Your task to perform on an android device: Search for "lg ultragear" on bestbuy, select the first entry, and add it to the cart. Image 0: 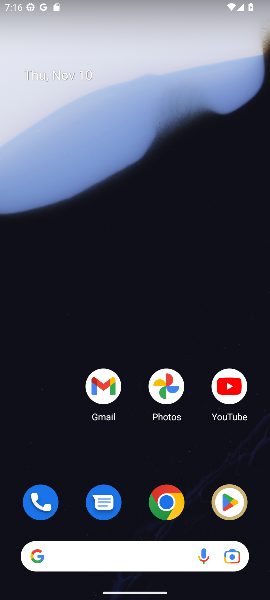
Step 0: drag from (124, 450) to (112, 98)
Your task to perform on an android device: Search for "lg ultragear" on bestbuy, select the first entry, and add it to the cart. Image 1: 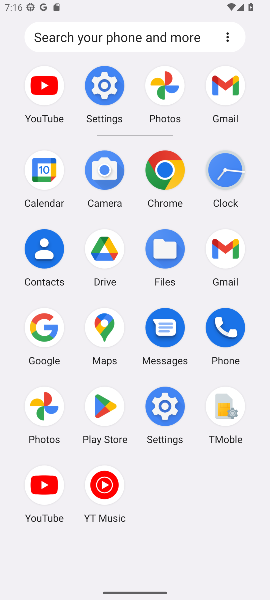
Step 1: click (52, 332)
Your task to perform on an android device: Search for "lg ultragear" on bestbuy, select the first entry, and add it to the cart. Image 2: 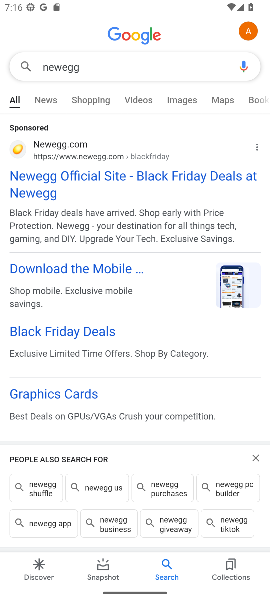
Step 2: click (132, 67)
Your task to perform on an android device: Search for "lg ultragear" on bestbuy, select the first entry, and add it to the cart. Image 3: 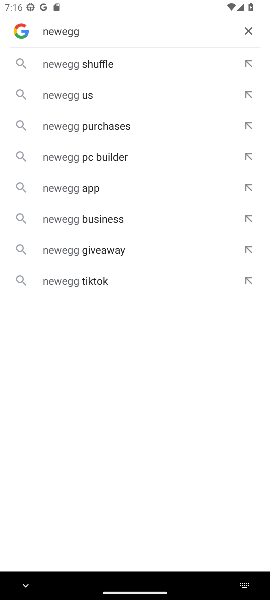
Step 3: click (246, 34)
Your task to perform on an android device: Search for "lg ultragear" on bestbuy, select the first entry, and add it to the cart. Image 4: 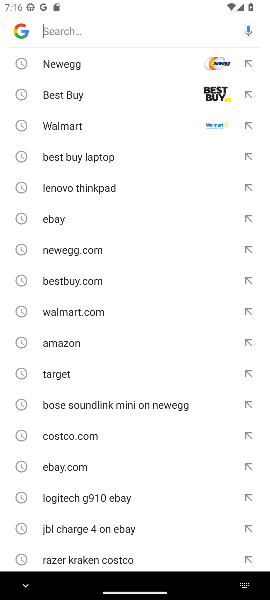
Step 4: type "bestbuy"
Your task to perform on an android device: Search for "lg ultragear" on bestbuy, select the first entry, and add it to the cart. Image 5: 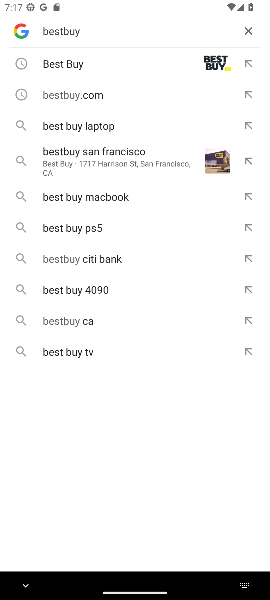
Step 5: click (135, 64)
Your task to perform on an android device: Search for "lg ultragear" on bestbuy, select the first entry, and add it to the cart. Image 6: 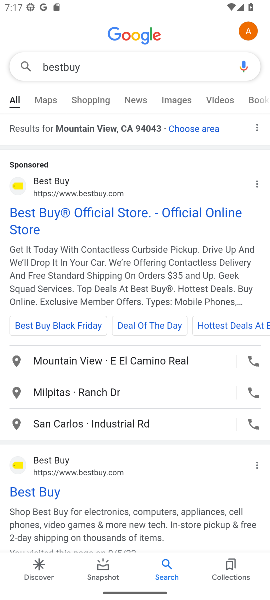
Step 6: click (44, 184)
Your task to perform on an android device: Search for "lg ultragear" on bestbuy, select the first entry, and add it to the cart. Image 7: 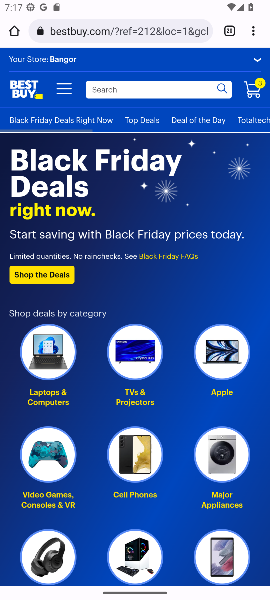
Step 7: click (142, 88)
Your task to perform on an android device: Search for "lg ultragear" on bestbuy, select the first entry, and add it to the cart. Image 8: 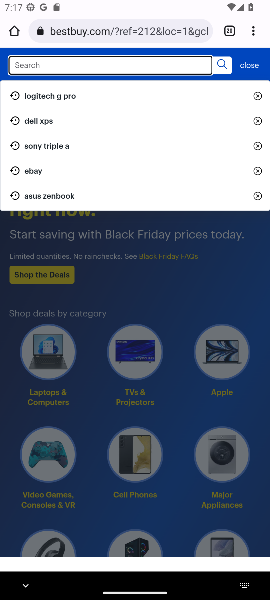
Step 8: type "lg ultragear"
Your task to perform on an android device: Search for "lg ultragear" on bestbuy, select the first entry, and add it to the cart. Image 9: 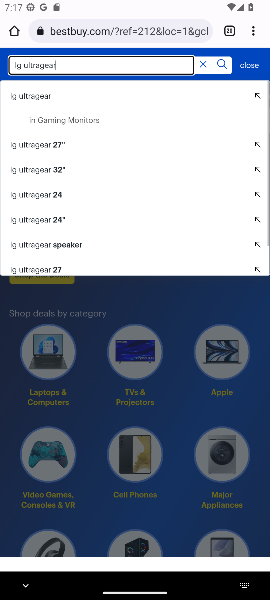
Step 9: click (38, 98)
Your task to perform on an android device: Search for "lg ultragear" on bestbuy, select the first entry, and add it to the cart. Image 10: 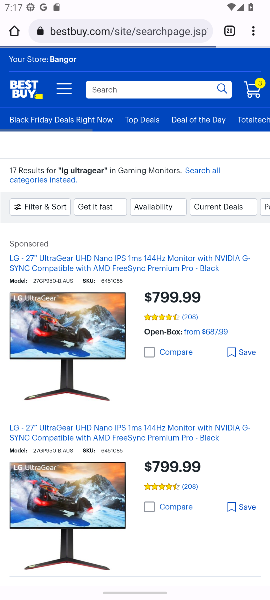
Step 10: click (224, 71)
Your task to perform on an android device: Search for "lg ultragear" on bestbuy, select the first entry, and add it to the cart. Image 11: 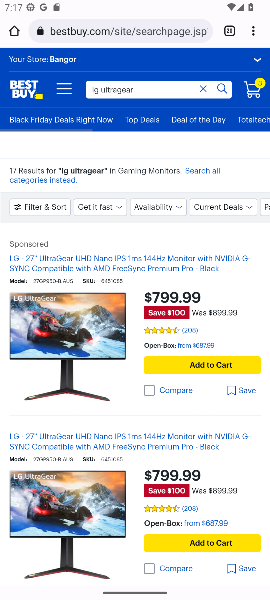
Step 11: click (97, 347)
Your task to perform on an android device: Search for "lg ultragear" on bestbuy, select the first entry, and add it to the cart. Image 12: 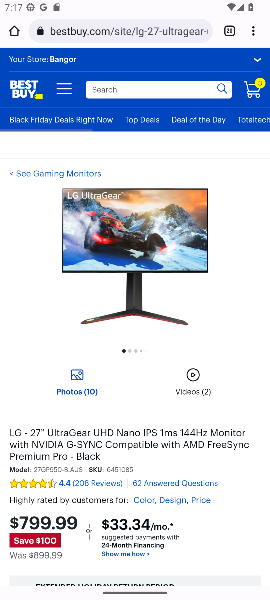
Step 12: drag from (198, 529) to (198, 374)
Your task to perform on an android device: Search for "lg ultragear" on bestbuy, select the first entry, and add it to the cart. Image 13: 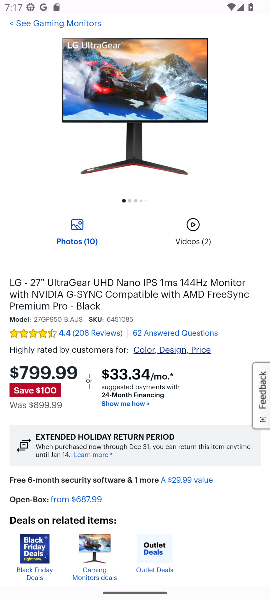
Step 13: drag from (193, 460) to (193, 353)
Your task to perform on an android device: Search for "lg ultragear" on bestbuy, select the first entry, and add it to the cart. Image 14: 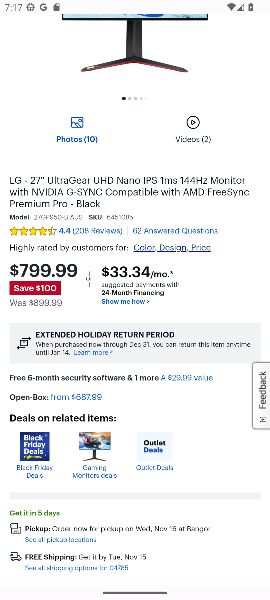
Step 14: drag from (152, 486) to (166, 260)
Your task to perform on an android device: Search for "lg ultragear" on bestbuy, select the first entry, and add it to the cart. Image 15: 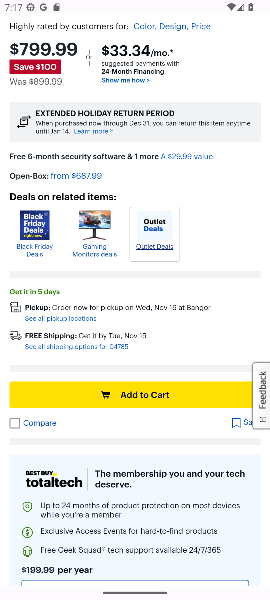
Step 15: click (121, 394)
Your task to perform on an android device: Search for "lg ultragear" on bestbuy, select the first entry, and add it to the cart. Image 16: 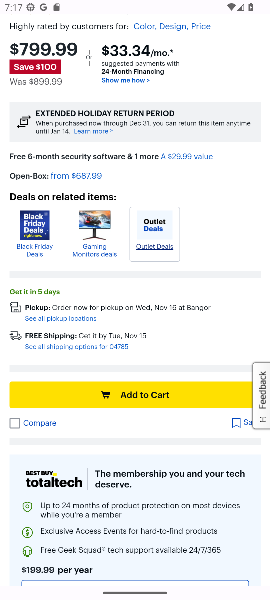
Step 16: click (121, 394)
Your task to perform on an android device: Search for "lg ultragear" on bestbuy, select the first entry, and add it to the cart. Image 17: 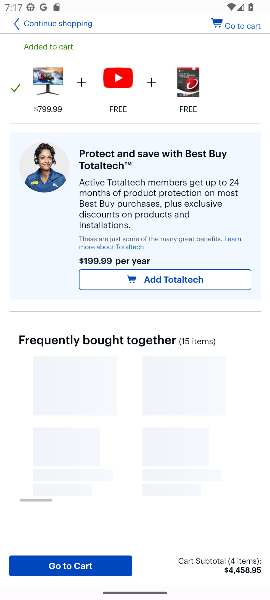
Step 17: click (121, 394)
Your task to perform on an android device: Search for "lg ultragear" on bestbuy, select the first entry, and add it to the cart. Image 18: 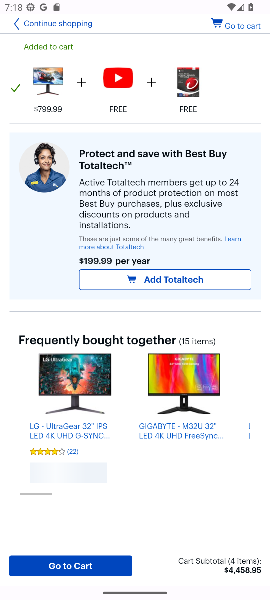
Step 18: task complete